Your task to perform on an android device: show emergency info Image 0: 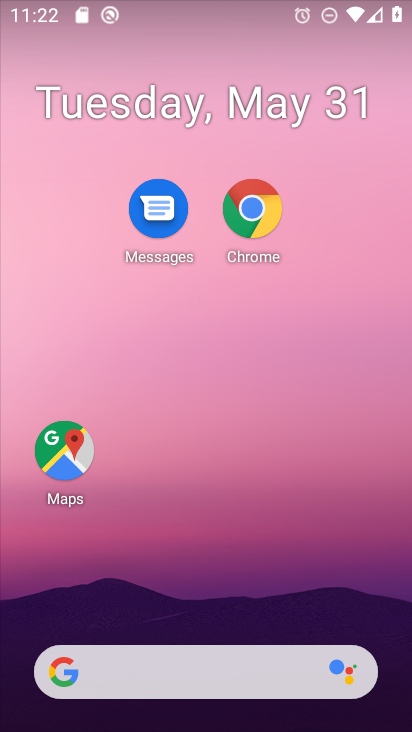
Step 0: drag from (211, 619) to (228, 30)
Your task to perform on an android device: show emergency info Image 1: 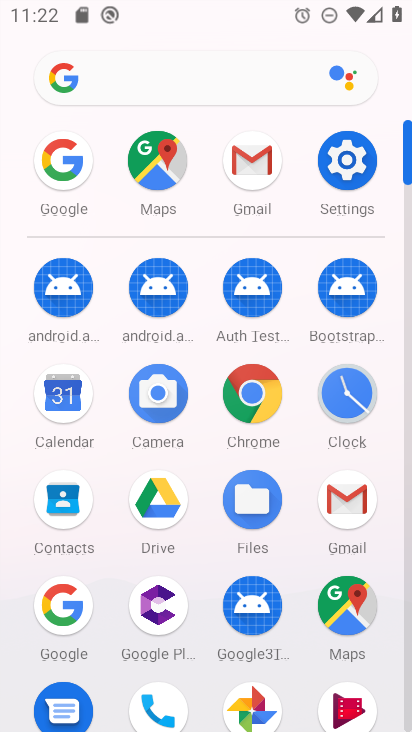
Step 1: click (351, 145)
Your task to perform on an android device: show emergency info Image 2: 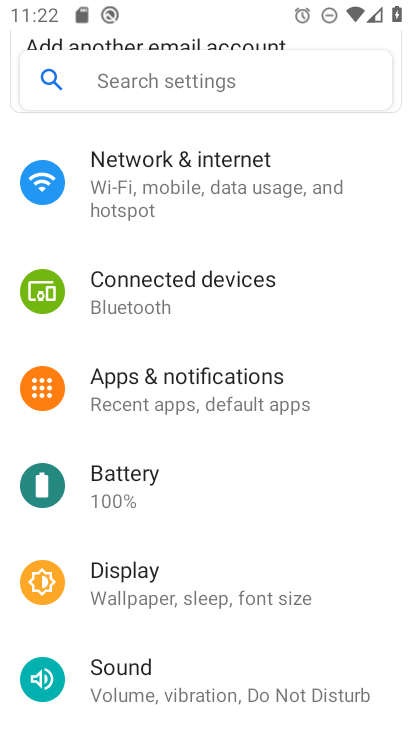
Step 2: drag from (221, 660) to (210, 67)
Your task to perform on an android device: show emergency info Image 3: 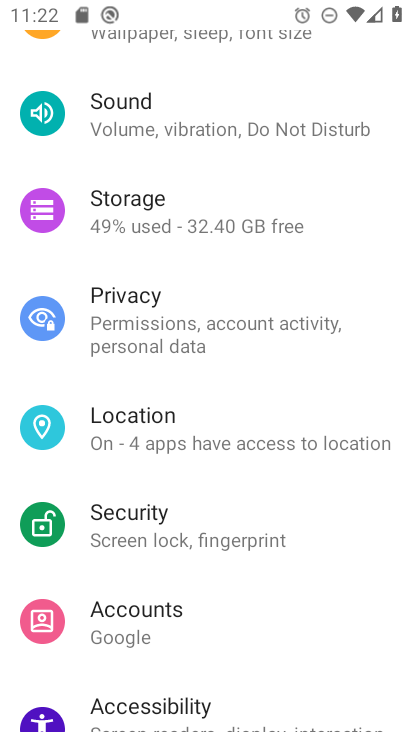
Step 3: drag from (219, 676) to (235, 68)
Your task to perform on an android device: show emergency info Image 4: 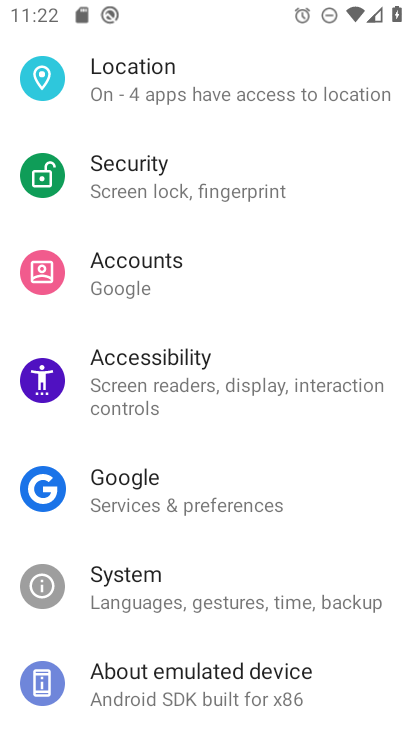
Step 4: click (195, 685)
Your task to perform on an android device: show emergency info Image 5: 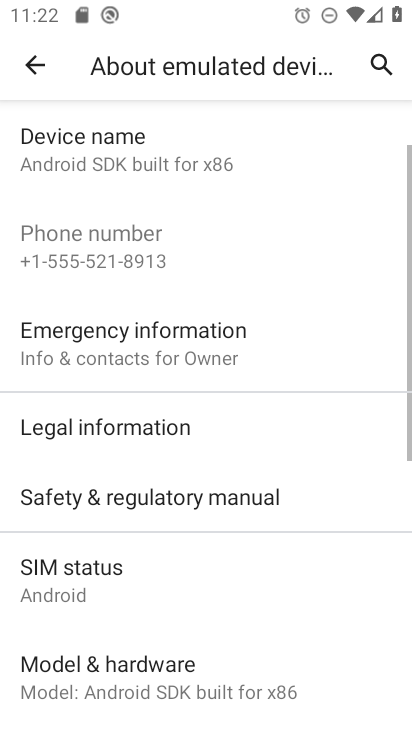
Step 5: drag from (252, 668) to (274, 191)
Your task to perform on an android device: show emergency info Image 6: 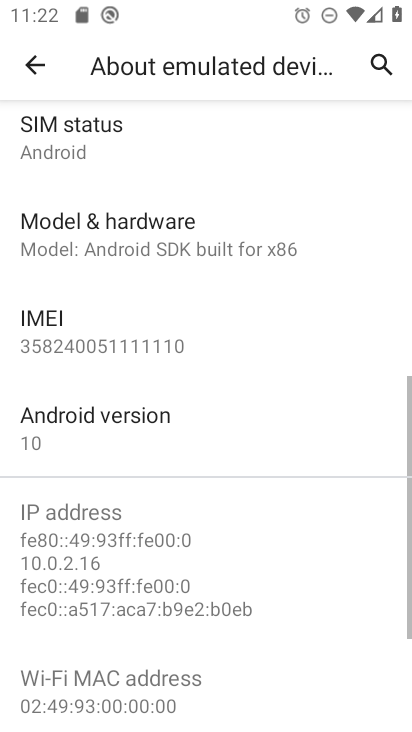
Step 6: drag from (168, 184) to (184, 664)
Your task to perform on an android device: show emergency info Image 7: 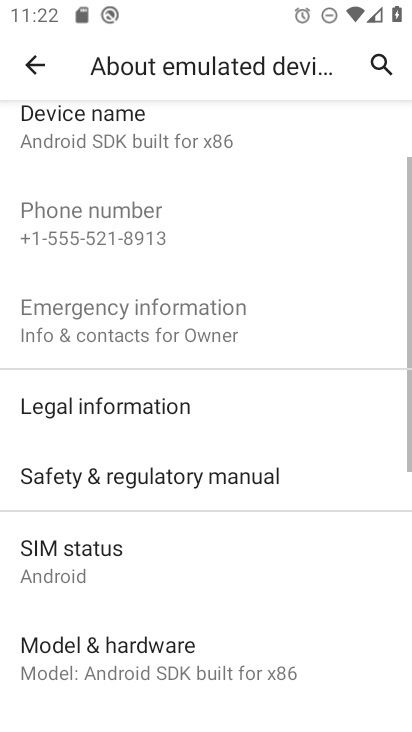
Step 7: click (244, 316)
Your task to perform on an android device: show emergency info Image 8: 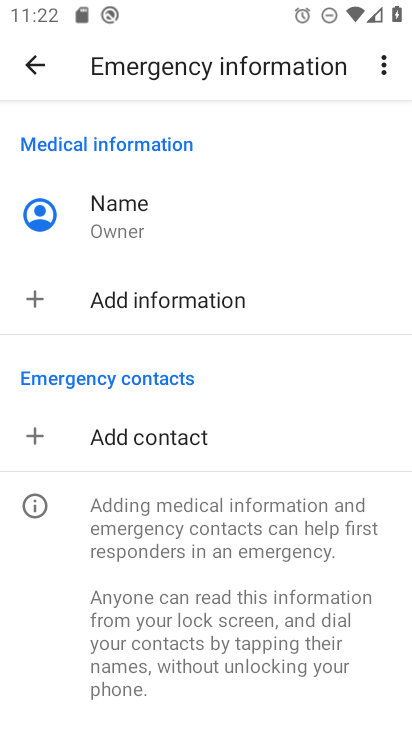
Step 8: task complete